Your task to perform on an android device: turn on data saver in the chrome app Image 0: 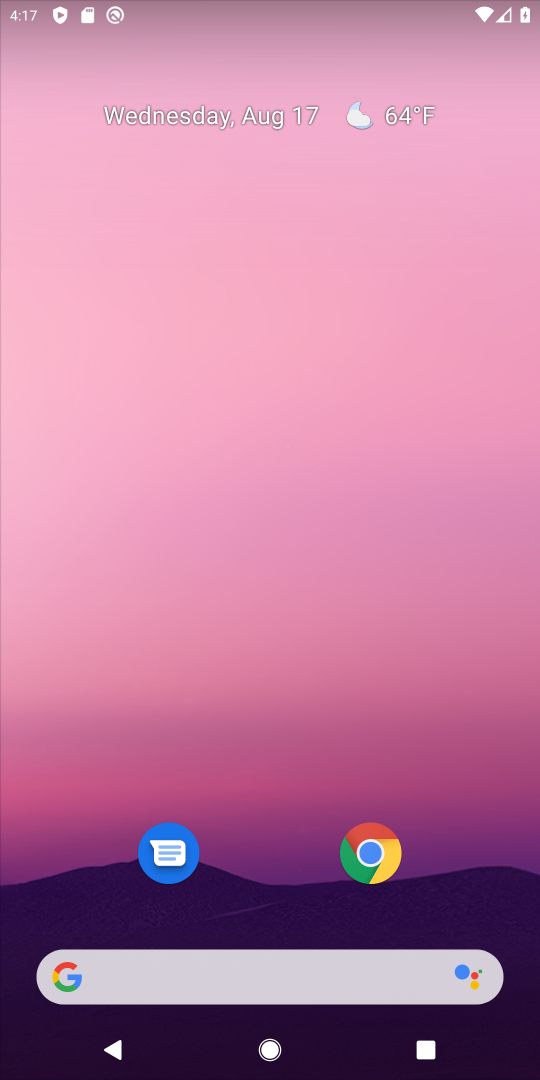
Step 0: click (375, 858)
Your task to perform on an android device: turn on data saver in the chrome app Image 1: 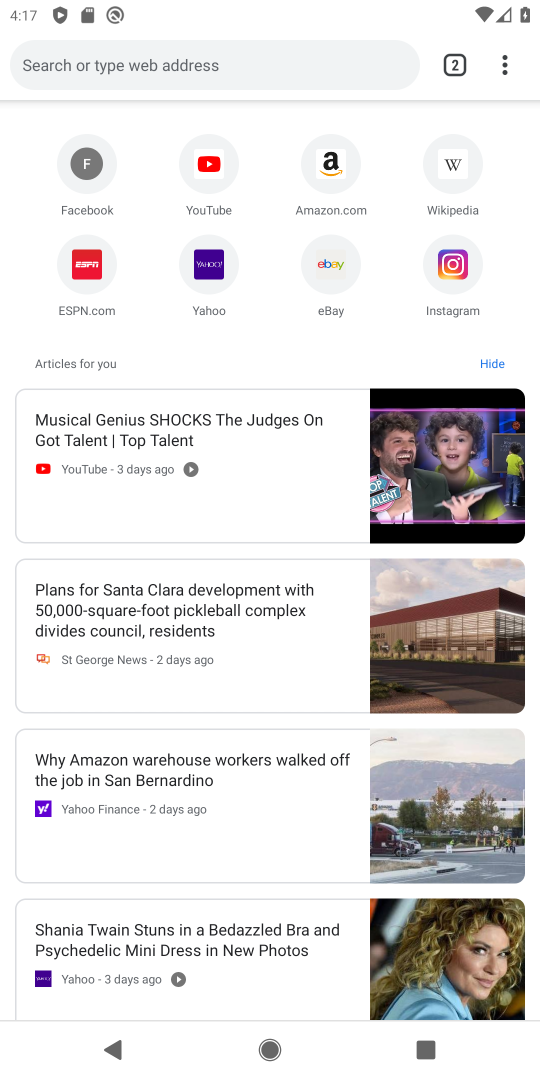
Step 1: click (505, 76)
Your task to perform on an android device: turn on data saver in the chrome app Image 2: 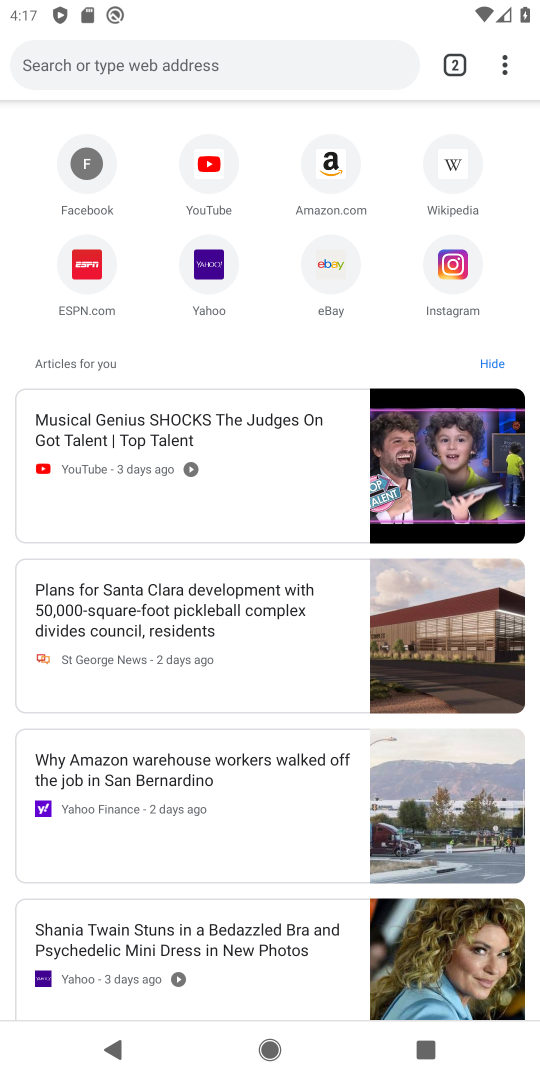
Step 2: click (497, 74)
Your task to perform on an android device: turn on data saver in the chrome app Image 3: 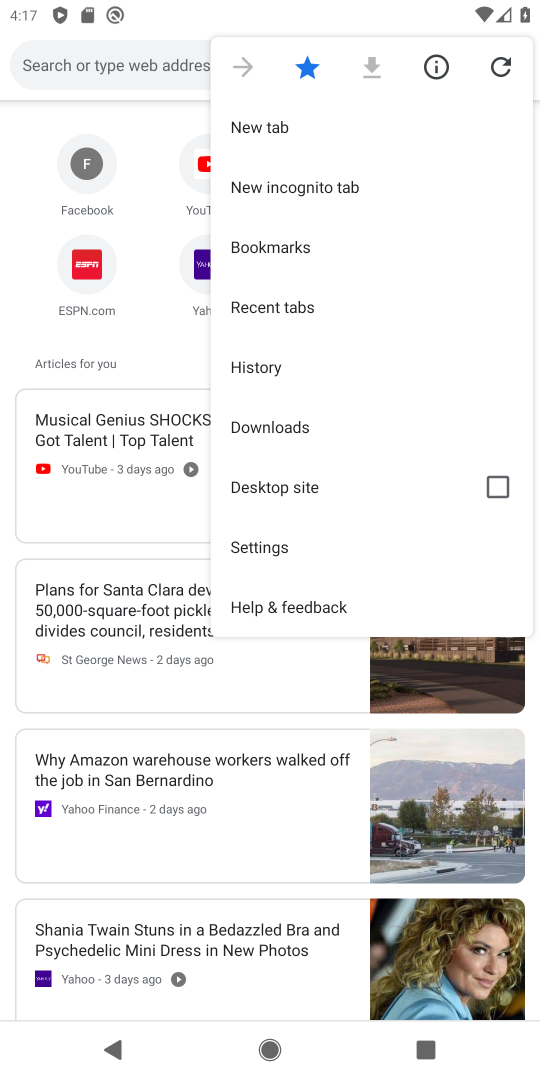
Step 3: click (278, 545)
Your task to perform on an android device: turn on data saver in the chrome app Image 4: 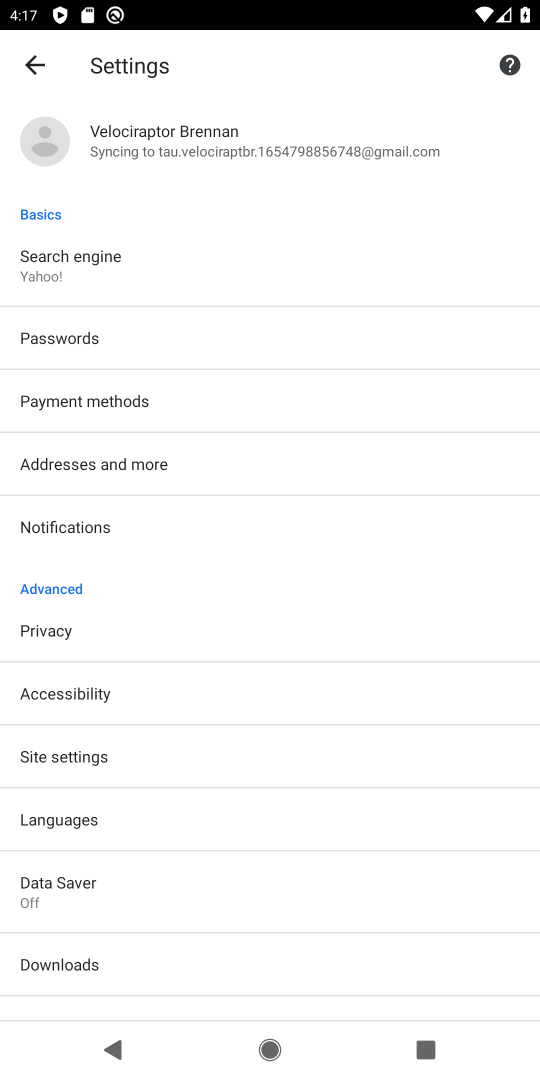
Step 4: click (53, 883)
Your task to perform on an android device: turn on data saver in the chrome app Image 5: 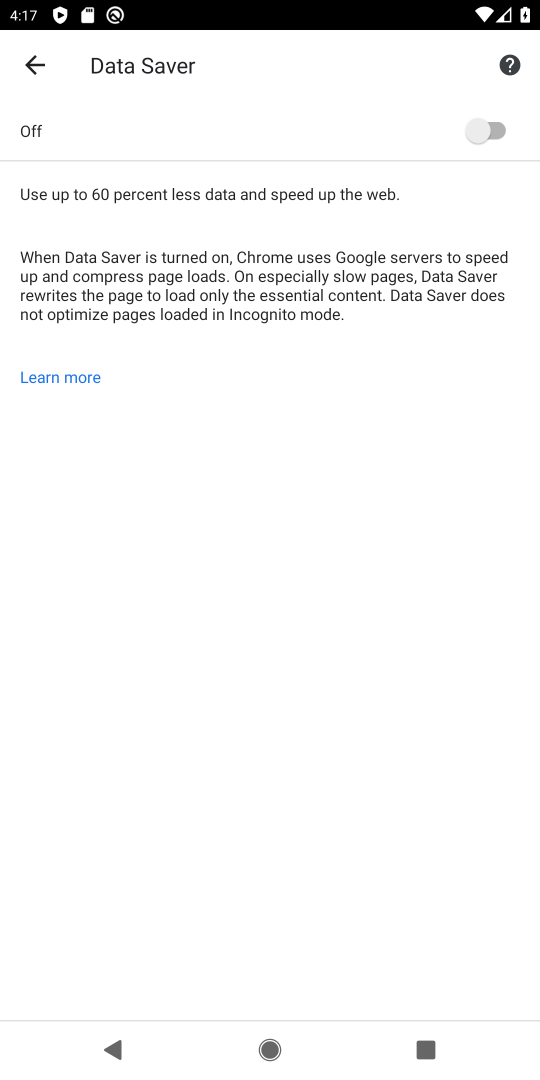
Step 5: click (501, 132)
Your task to perform on an android device: turn on data saver in the chrome app Image 6: 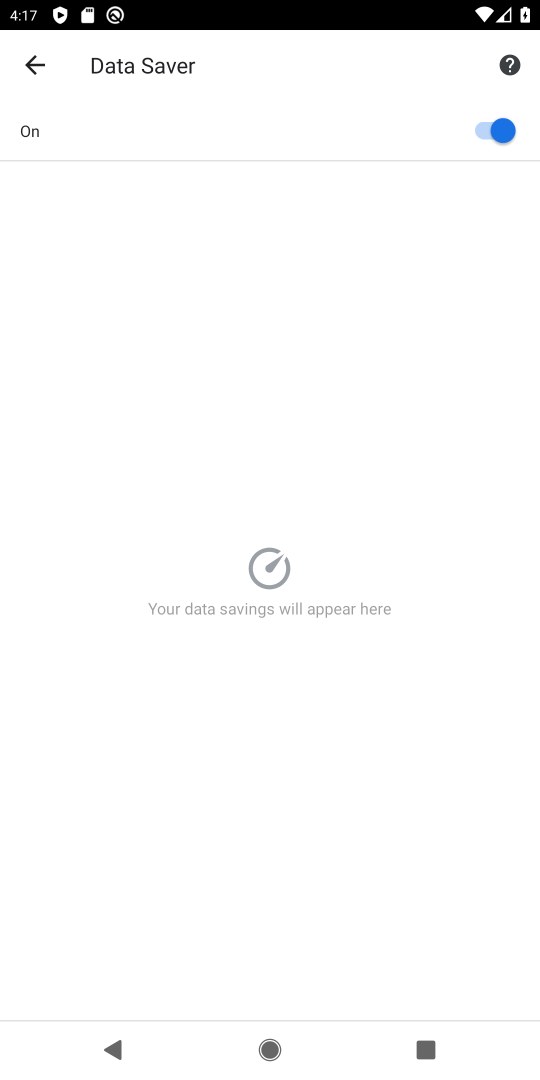
Step 6: task complete